Your task to perform on an android device: manage bookmarks in the chrome app Image 0: 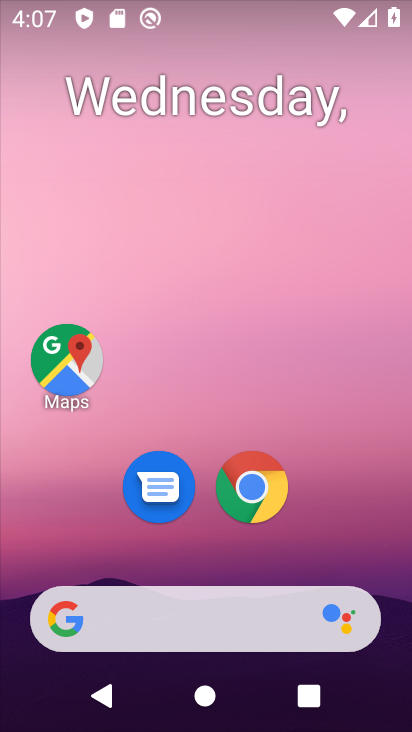
Step 0: press home button
Your task to perform on an android device: manage bookmarks in the chrome app Image 1: 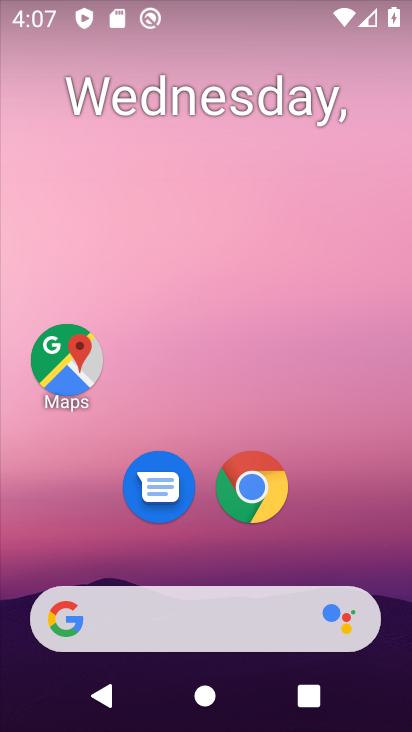
Step 1: click (250, 482)
Your task to perform on an android device: manage bookmarks in the chrome app Image 2: 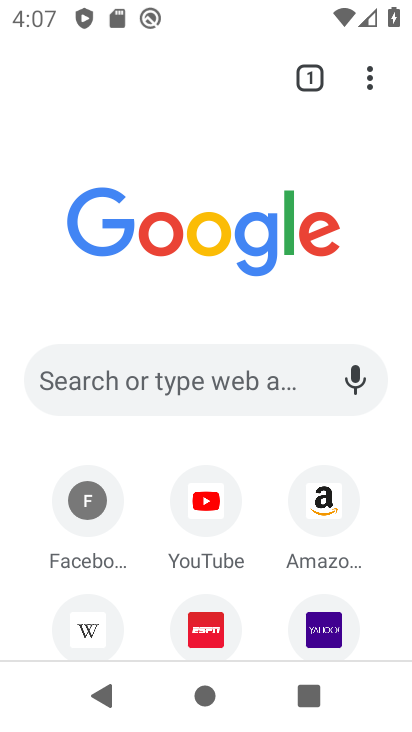
Step 2: click (370, 73)
Your task to perform on an android device: manage bookmarks in the chrome app Image 3: 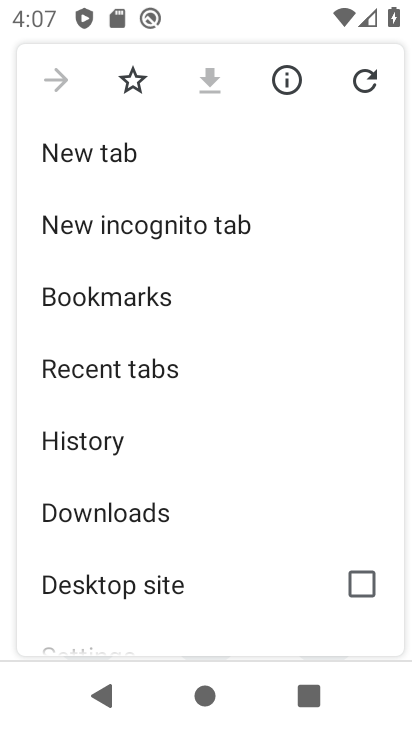
Step 3: click (186, 290)
Your task to perform on an android device: manage bookmarks in the chrome app Image 4: 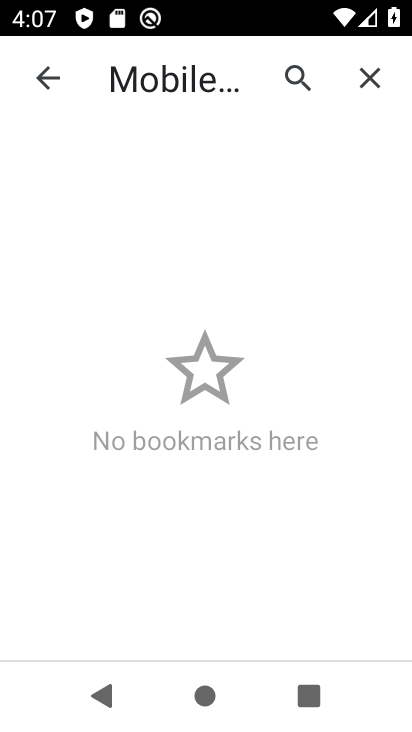
Step 4: task complete